Your task to perform on an android device: check storage Image 0: 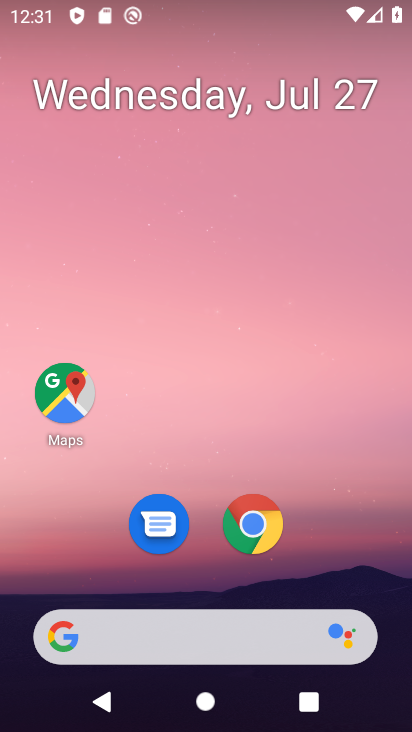
Step 0: drag from (343, 536) to (352, 26)
Your task to perform on an android device: check storage Image 1: 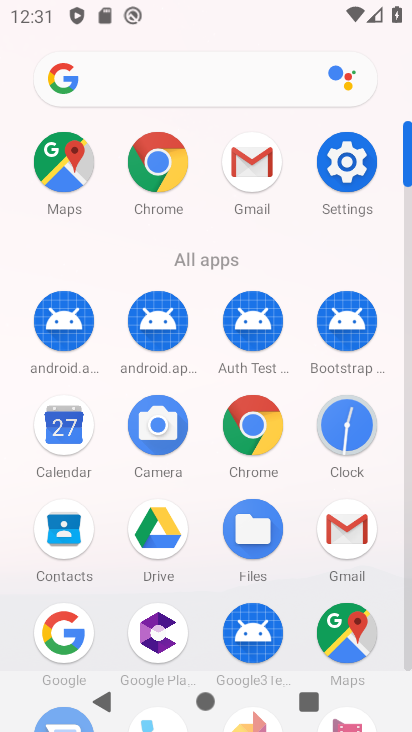
Step 1: click (354, 160)
Your task to perform on an android device: check storage Image 2: 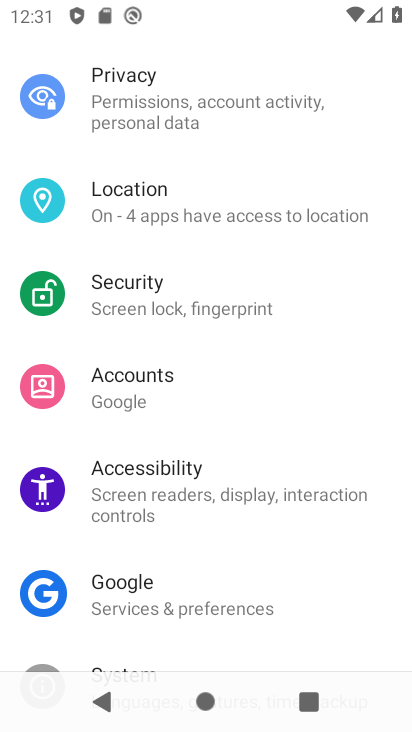
Step 2: drag from (252, 166) to (209, 553)
Your task to perform on an android device: check storage Image 3: 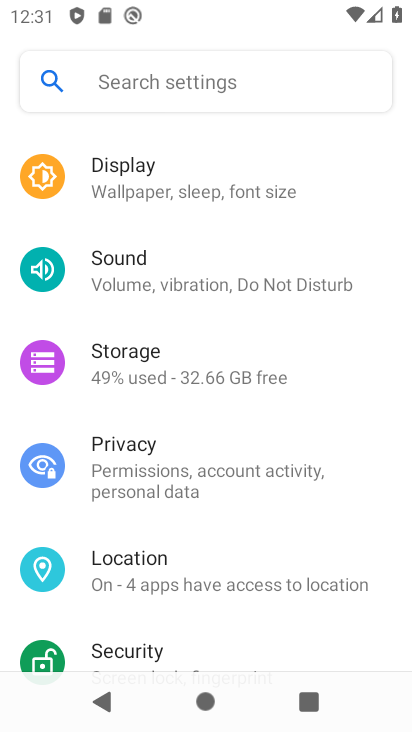
Step 3: click (229, 367)
Your task to perform on an android device: check storage Image 4: 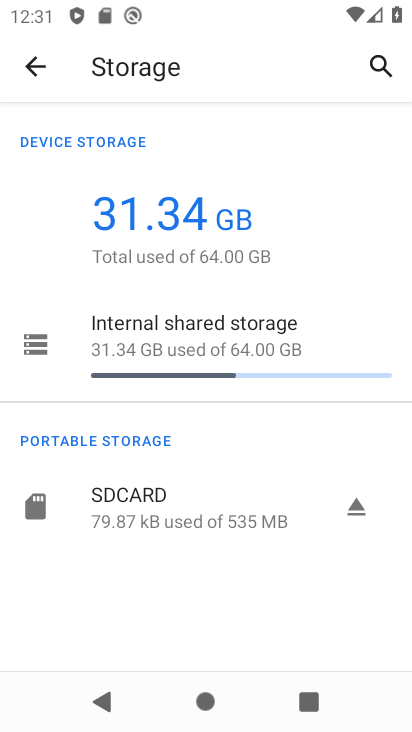
Step 4: task complete